Your task to perform on an android device: toggle sleep mode Image 0: 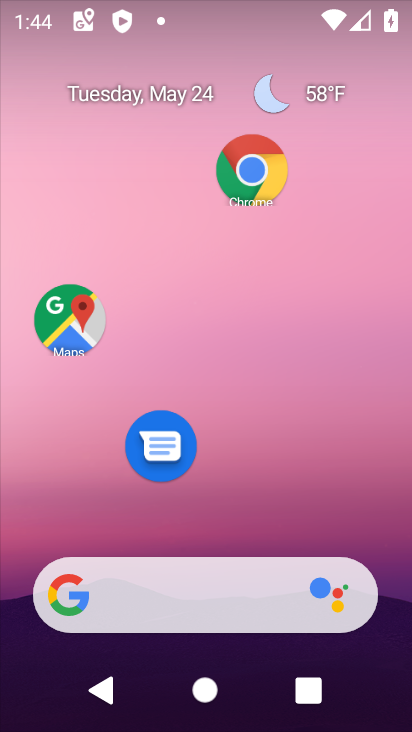
Step 0: drag from (249, 587) to (217, 158)
Your task to perform on an android device: toggle sleep mode Image 1: 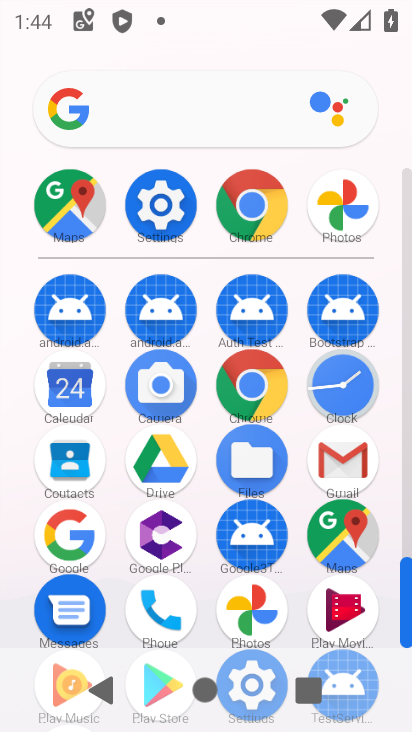
Step 1: drag from (280, 522) to (270, 210)
Your task to perform on an android device: toggle sleep mode Image 2: 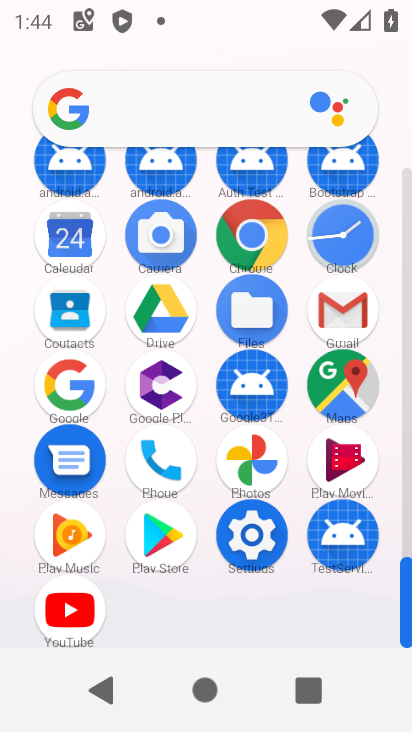
Step 2: click (250, 562)
Your task to perform on an android device: toggle sleep mode Image 3: 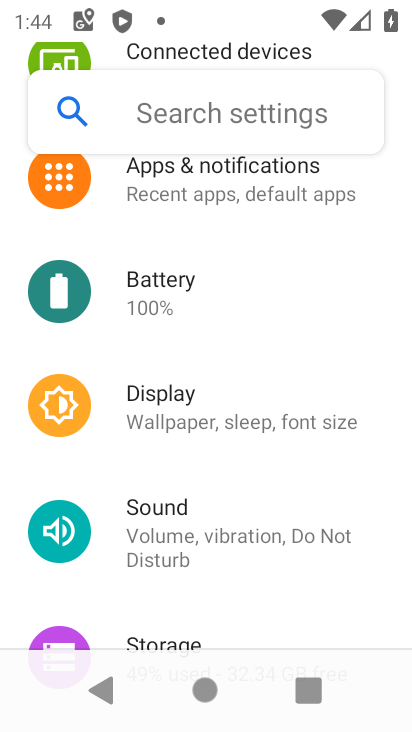
Step 3: click (188, 419)
Your task to perform on an android device: toggle sleep mode Image 4: 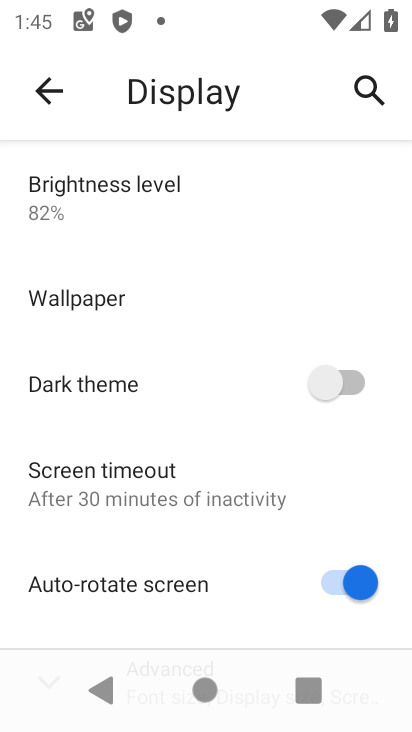
Step 4: drag from (148, 520) to (183, 269)
Your task to perform on an android device: toggle sleep mode Image 5: 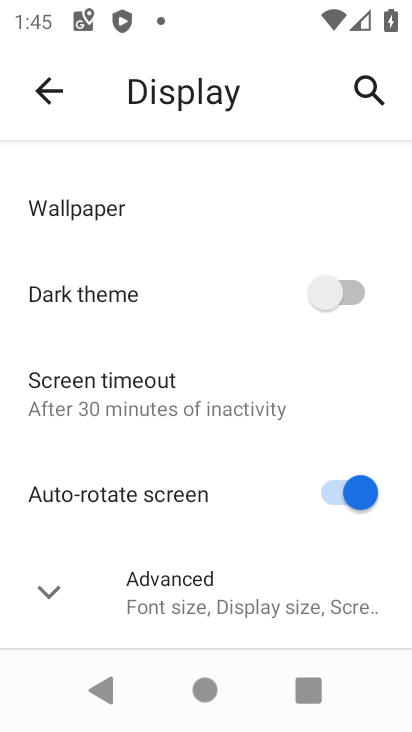
Step 5: click (223, 632)
Your task to perform on an android device: toggle sleep mode Image 6: 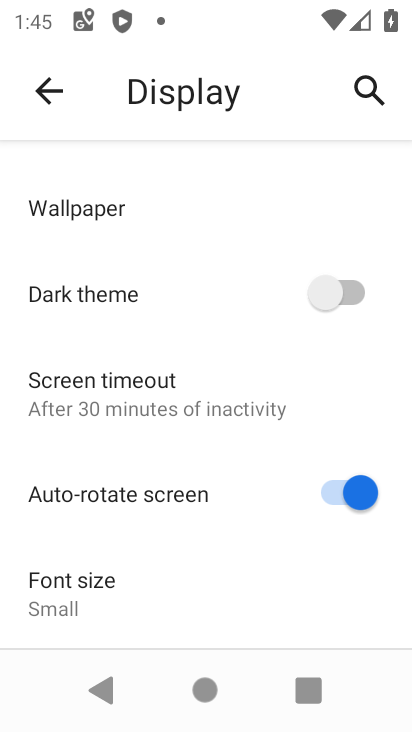
Step 6: task complete